Your task to perform on an android device: turn off sleep mode Image 0: 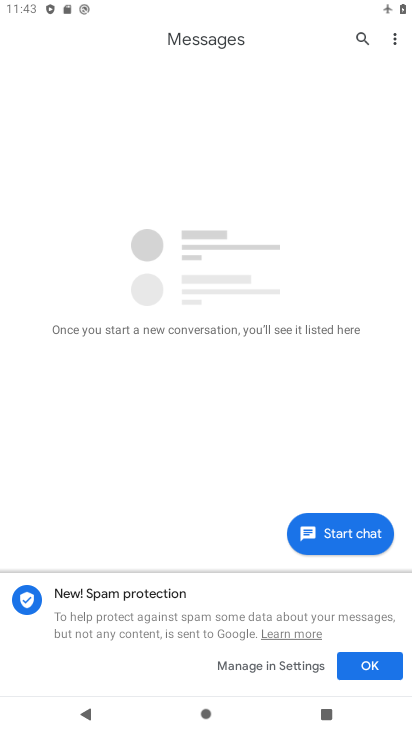
Step 0: press home button
Your task to perform on an android device: turn off sleep mode Image 1: 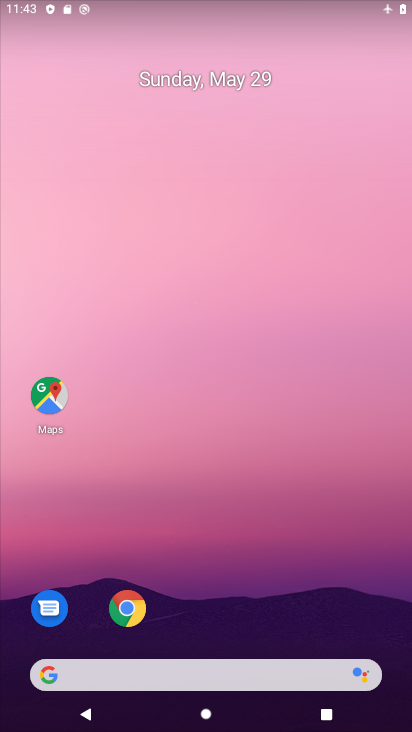
Step 1: drag from (230, 661) to (180, 56)
Your task to perform on an android device: turn off sleep mode Image 2: 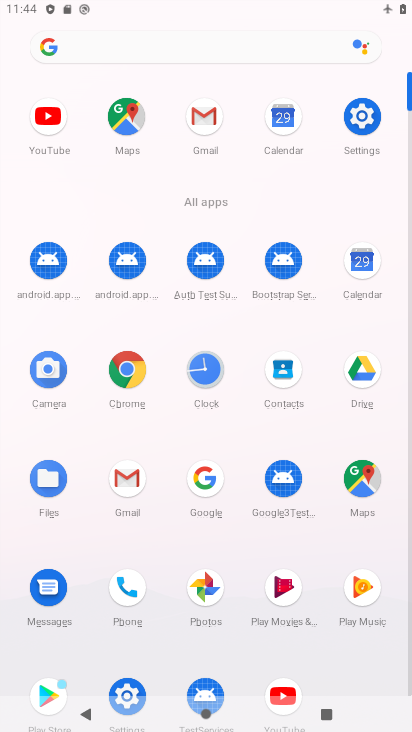
Step 2: click (375, 118)
Your task to perform on an android device: turn off sleep mode Image 3: 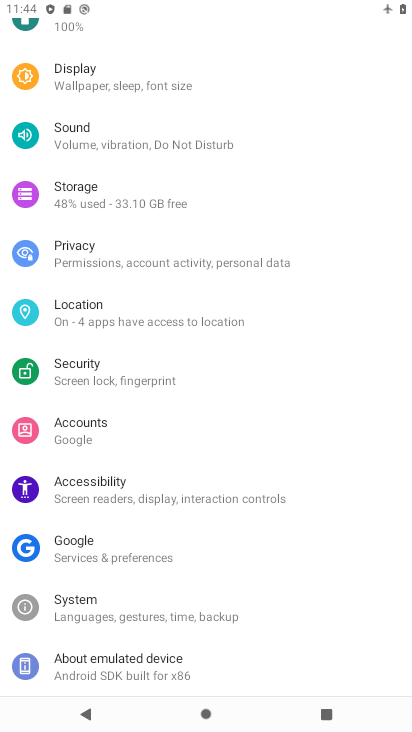
Step 3: click (165, 66)
Your task to perform on an android device: turn off sleep mode Image 4: 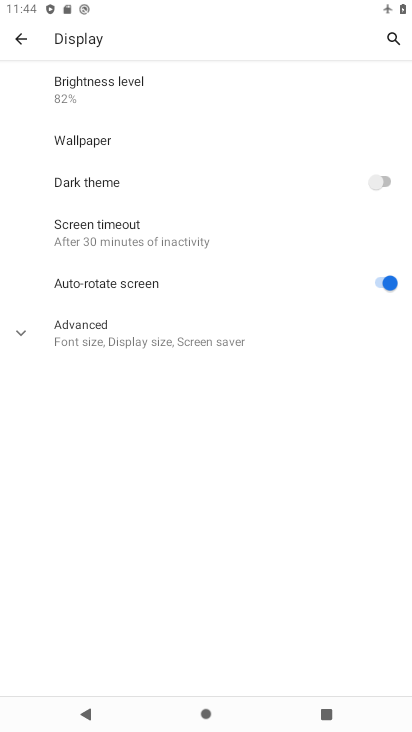
Step 4: task complete